Your task to perform on an android device: open chrome and create a bookmark for the current page Image 0: 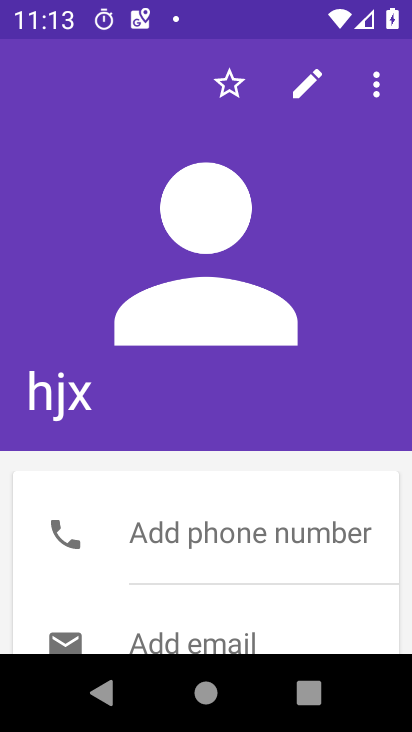
Step 0: press home button
Your task to perform on an android device: open chrome and create a bookmark for the current page Image 1: 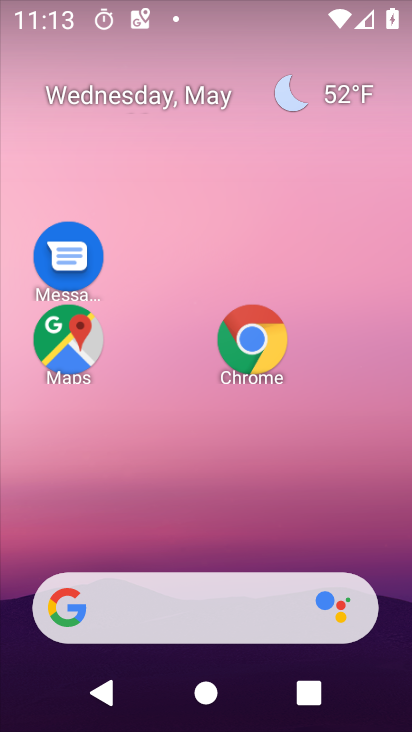
Step 1: click (253, 343)
Your task to perform on an android device: open chrome and create a bookmark for the current page Image 2: 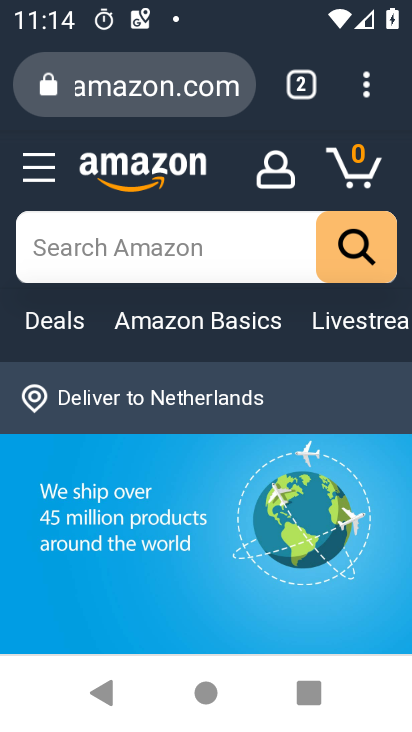
Step 2: click (359, 96)
Your task to perform on an android device: open chrome and create a bookmark for the current page Image 3: 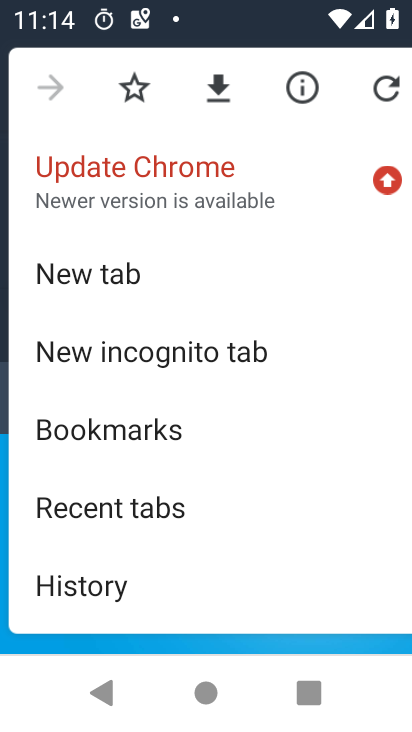
Step 3: click (140, 87)
Your task to perform on an android device: open chrome and create a bookmark for the current page Image 4: 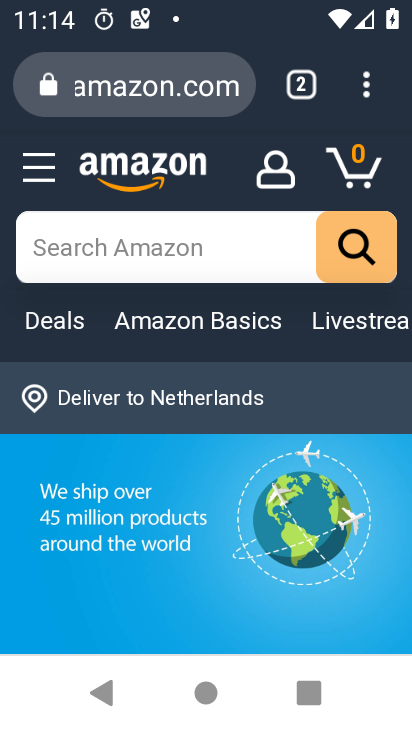
Step 4: task complete